Your task to perform on an android device: open app "Pandora - Music & Podcasts" (install if not already installed) Image 0: 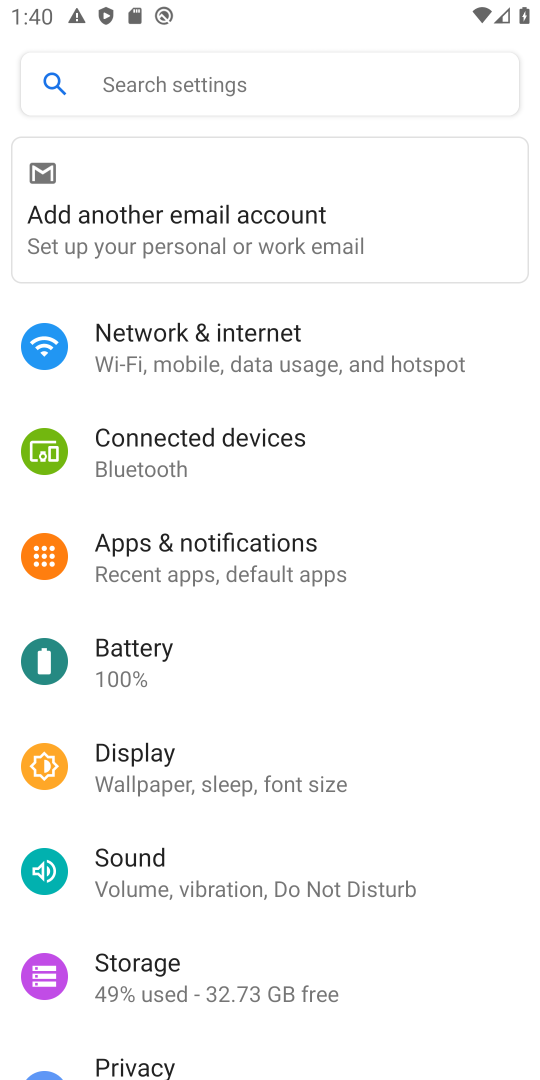
Step 0: press home button
Your task to perform on an android device: open app "Pandora - Music & Podcasts" (install if not already installed) Image 1: 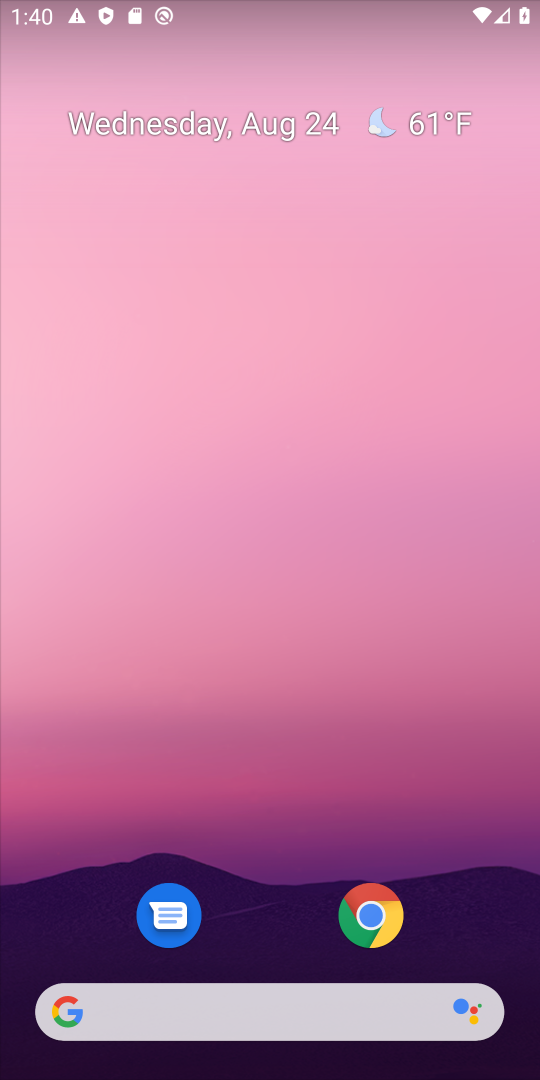
Step 1: drag from (274, 845) to (244, 280)
Your task to perform on an android device: open app "Pandora - Music & Podcasts" (install if not already installed) Image 2: 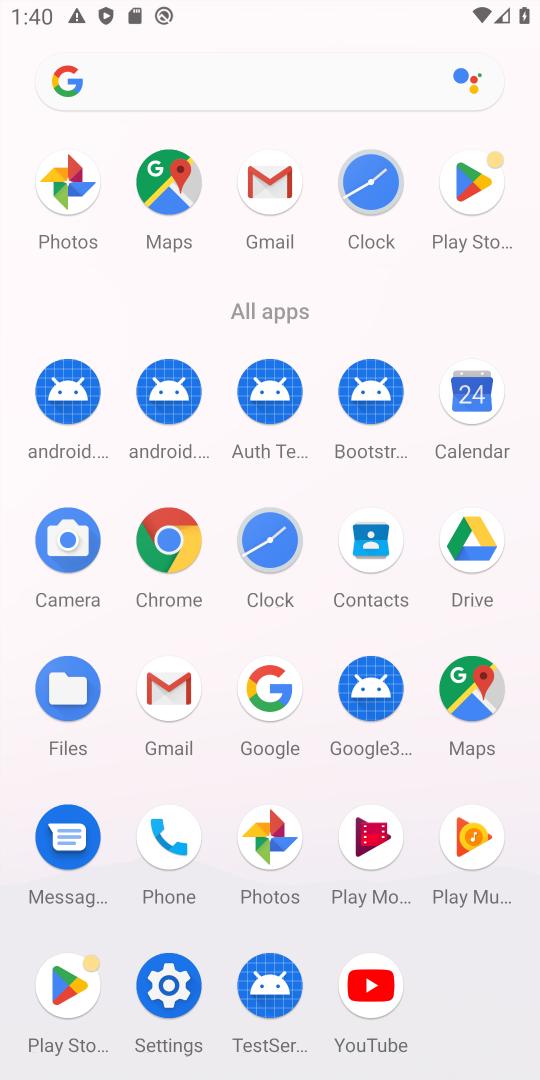
Step 2: click (487, 196)
Your task to perform on an android device: open app "Pandora - Music & Podcasts" (install if not already installed) Image 3: 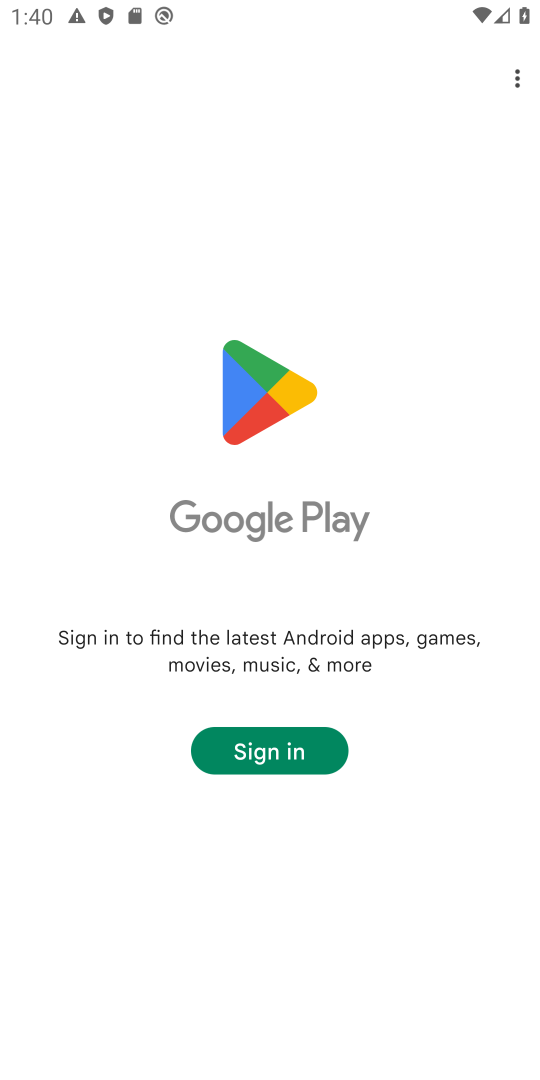
Step 3: task complete